Your task to perform on an android device: open wifi settings Image 0: 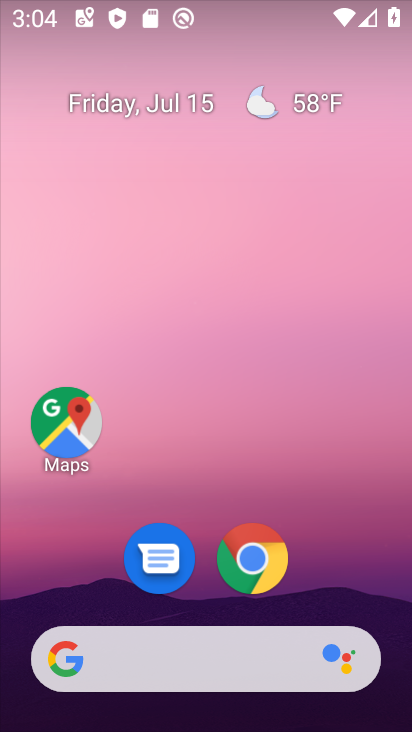
Step 0: drag from (356, 559) to (371, 69)
Your task to perform on an android device: open wifi settings Image 1: 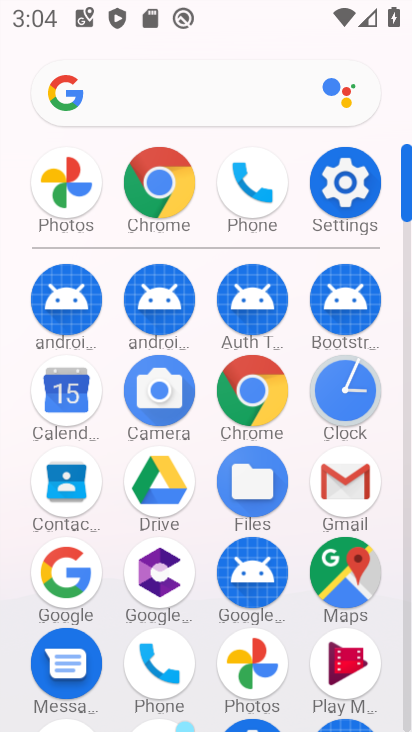
Step 1: click (357, 188)
Your task to perform on an android device: open wifi settings Image 2: 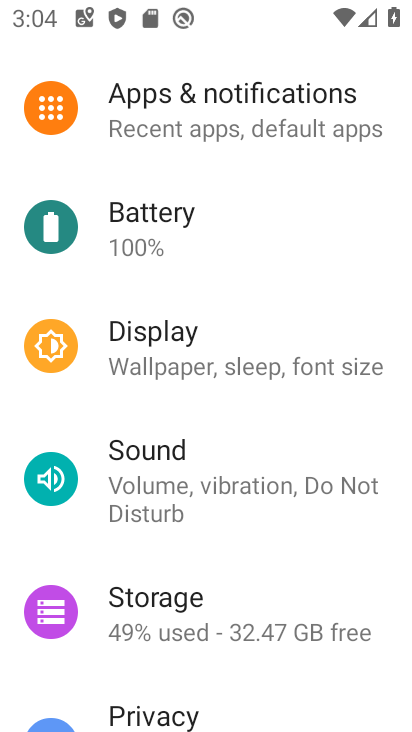
Step 2: drag from (357, 572) to (365, 487)
Your task to perform on an android device: open wifi settings Image 3: 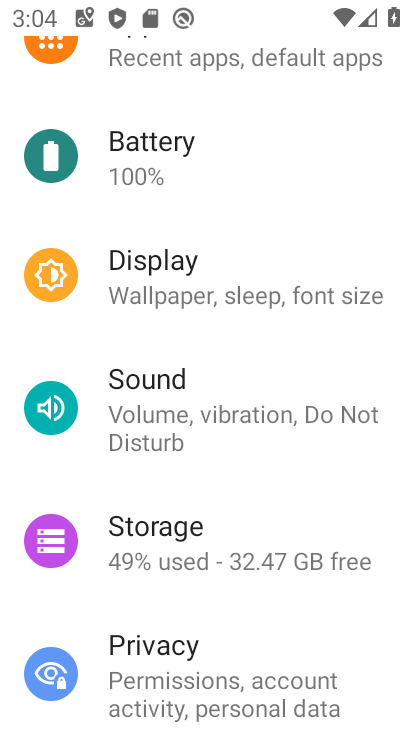
Step 3: drag from (369, 642) to (371, 526)
Your task to perform on an android device: open wifi settings Image 4: 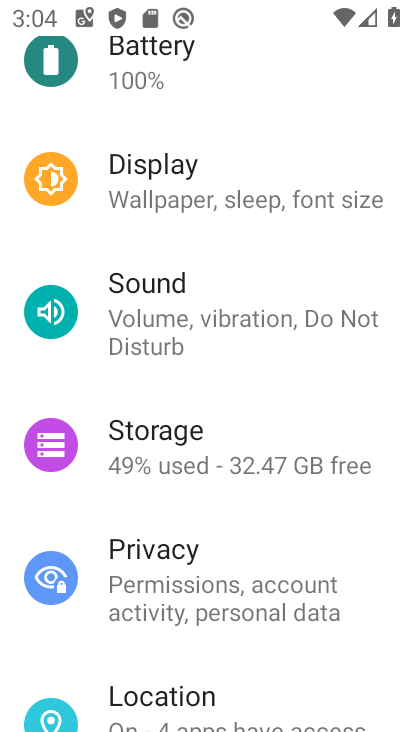
Step 4: drag from (367, 614) to (368, 515)
Your task to perform on an android device: open wifi settings Image 5: 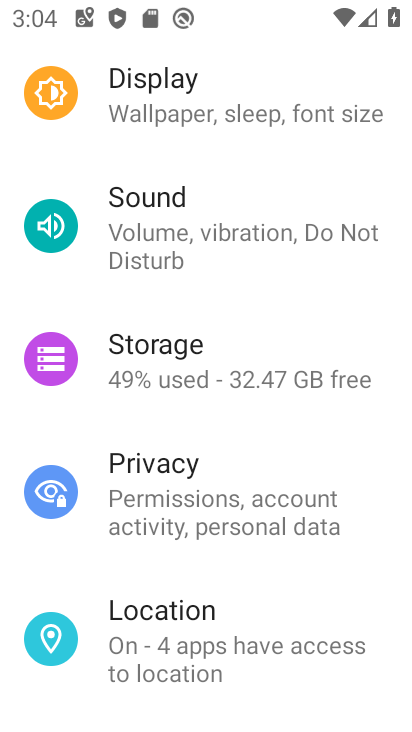
Step 5: drag from (368, 604) to (373, 505)
Your task to perform on an android device: open wifi settings Image 6: 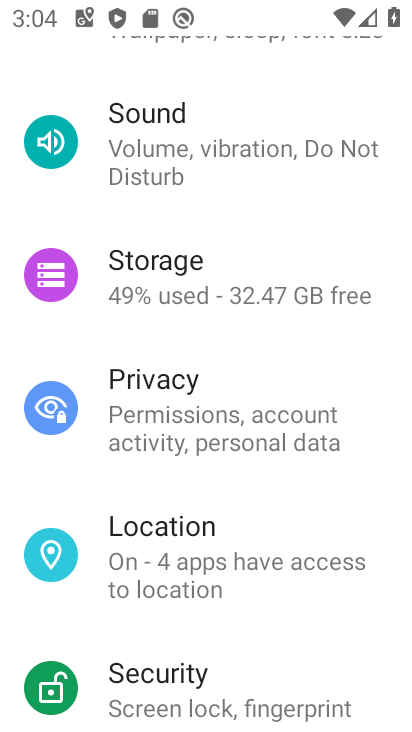
Step 6: drag from (355, 616) to (362, 499)
Your task to perform on an android device: open wifi settings Image 7: 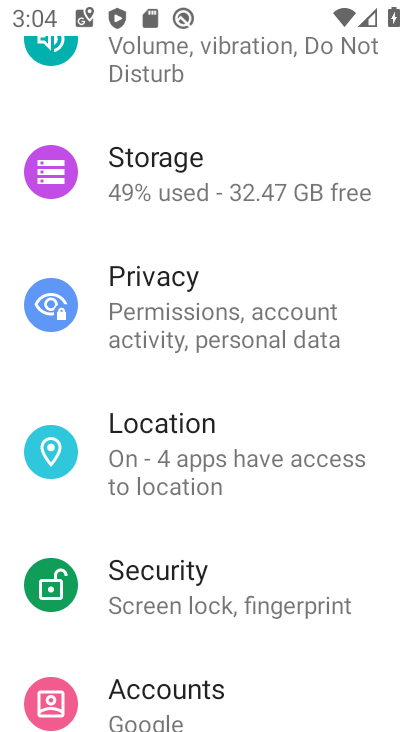
Step 7: drag from (377, 604) to (378, 502)
Your task to perform on an android device: open wifi settings Image 8: 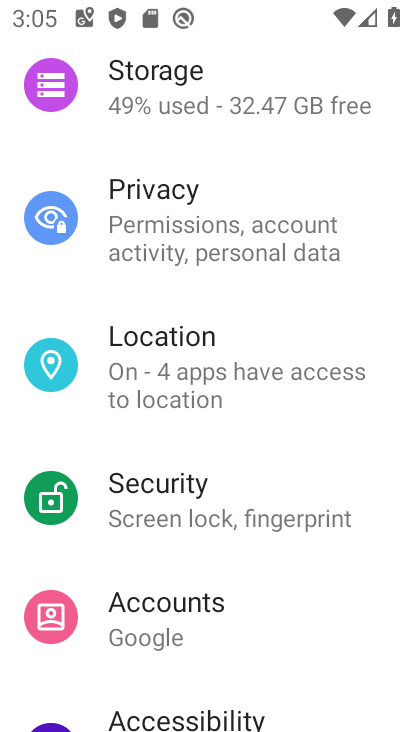
Step 8: drag from (366, 412) to (359, 499)
Your task to perform on an android device: open wifi settings Image 9: 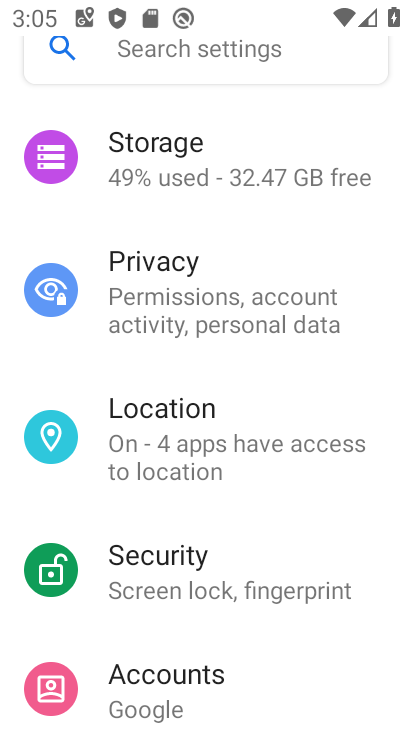
Step 9: drag from (361, 400) to (371, 497)
Your task to perform on an android device: open wifi settings Image 10: 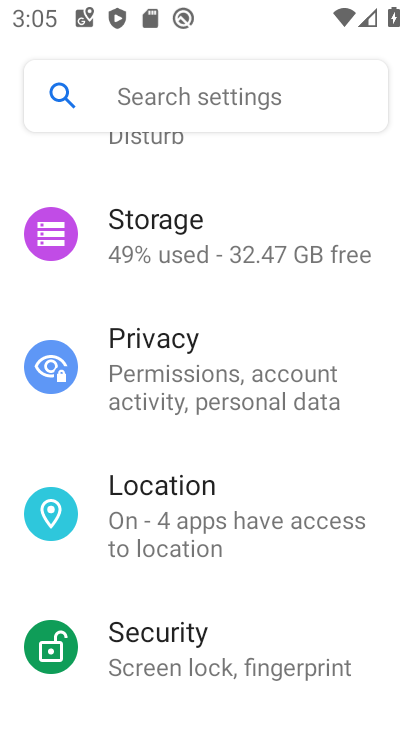
Step 10: drag from (369, 379) to (375, 470)
Your task to perform on an android device: open wifi settings Image 11: 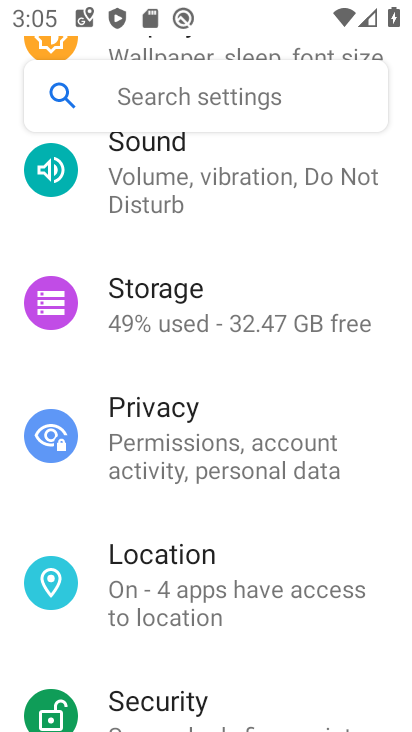
Step 11: drag from (373, 334) to (364, 442)
Your task to perform on an android device: open wifi settings Image 12: 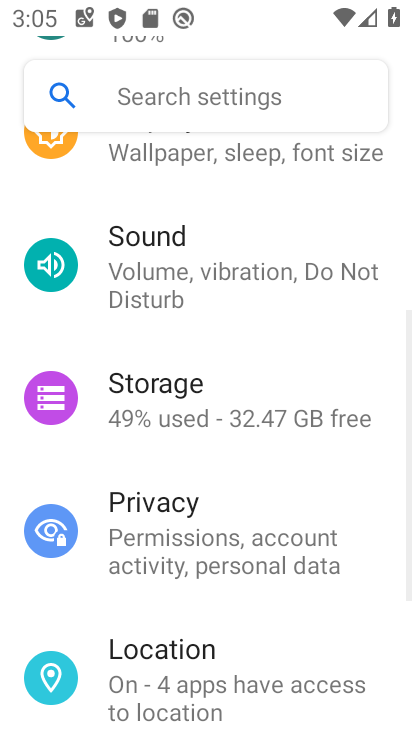
Step 12: drag from (377, 320) to (379, 423)
Your task to perform on an android device: open wifi settings Image 13: 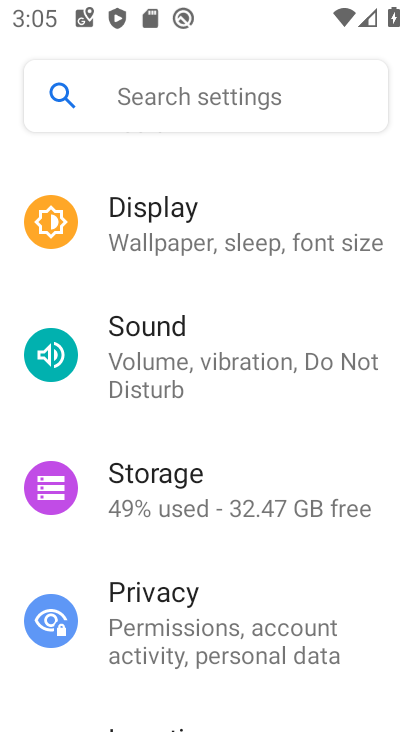
Step 13: drag from (377, 293) to (374, 401)
Your task to perform on an android device: open wifi settings Image 14: 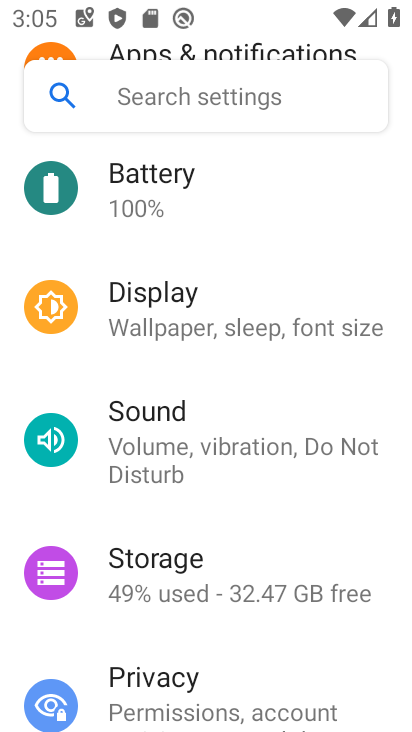
Step 14: drag from (377, 250) to (378, 353)
Your task to perform on an android device: open wifi settings Image 15: 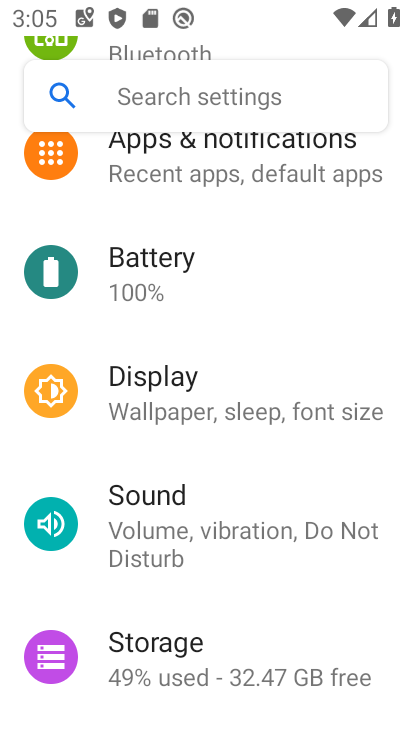
Step 15: drag from (372, 247) to (368, 348)
Your task to perform on an android device: open wifi settings Image 16: 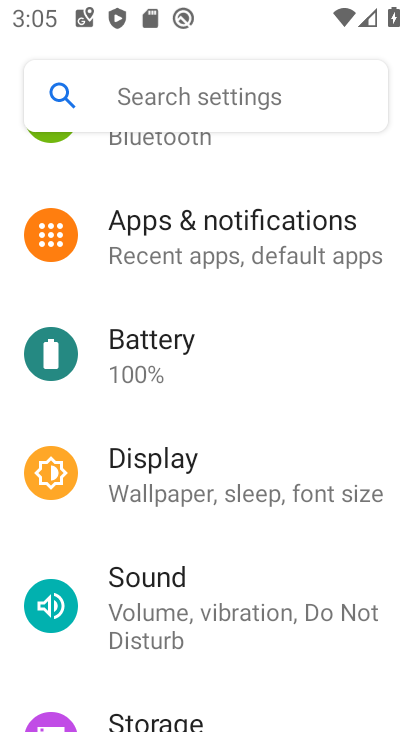
Step 16: drag from (377, 217) to (376, 325)
Your task to perform on an android device: open wifi settings Image 17: 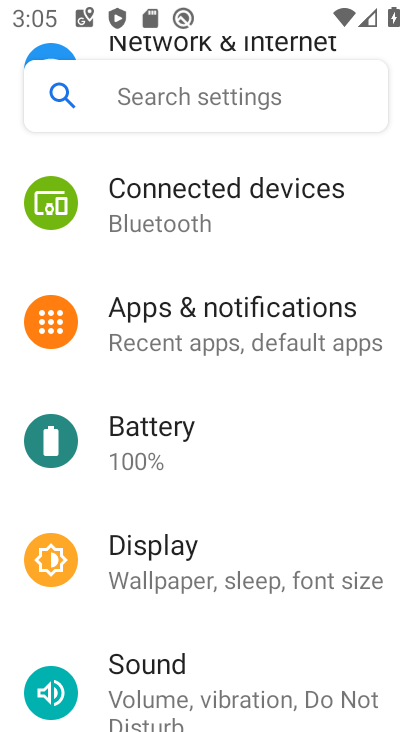
Step 17: drag from (365, 193) to (353, 306)
Your task to perform on an android device: open wifi settings Image 18: 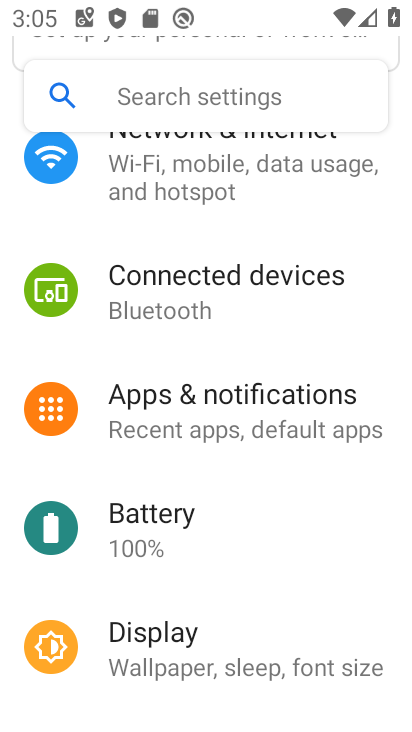
Step 18: drag from (363, 207) to (360, 339)
Your task to perform on an android device: open wifi settings Image 19: 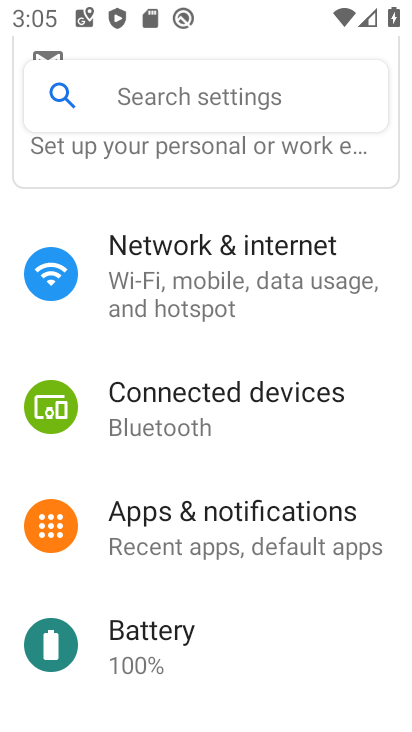
Step 19: click (308, 285)
Your task to perform on an android device: open wifi settings Image 20: 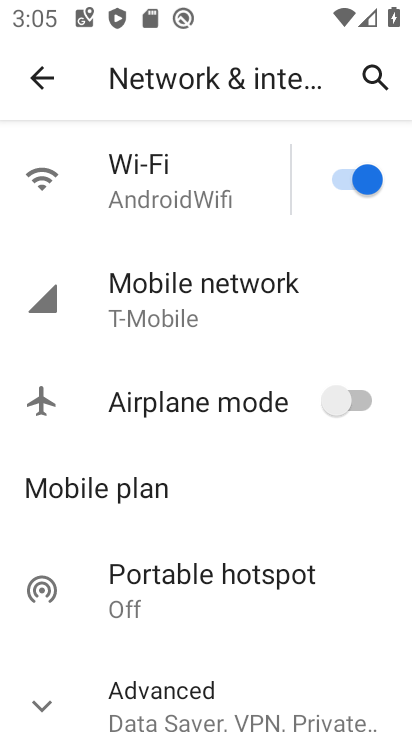
Step 20: click (198, 204)
Your task to perform on an android device: open wifi settings Image 21: 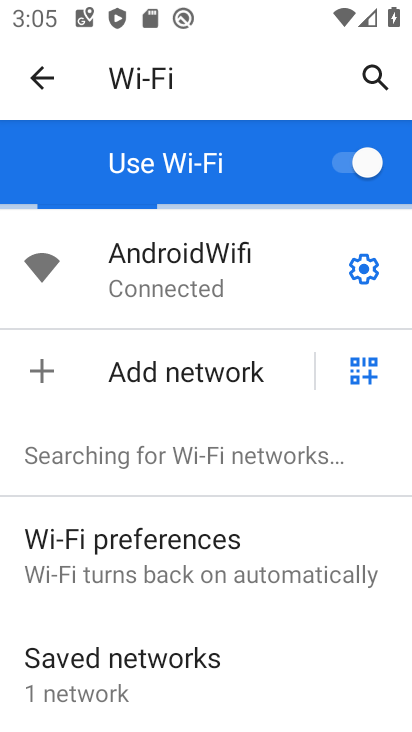
Step 21: task complete